Your task to perform on an android device: Open Chrome and go to settings Image 0: 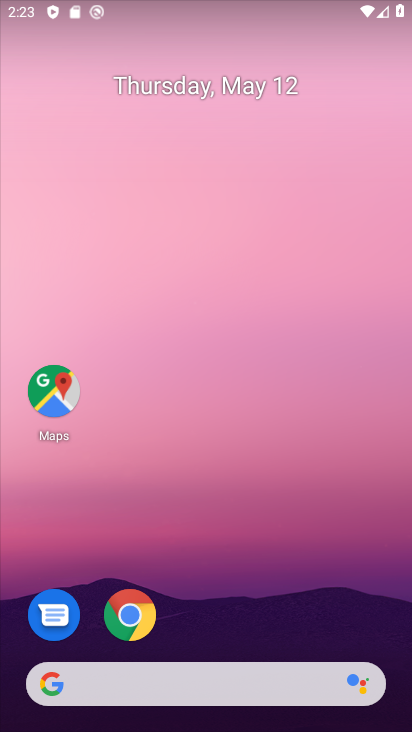
Step 0: click (126, 610)
Your task to perform on an android device: Open Chrome and go to settings Image 1: 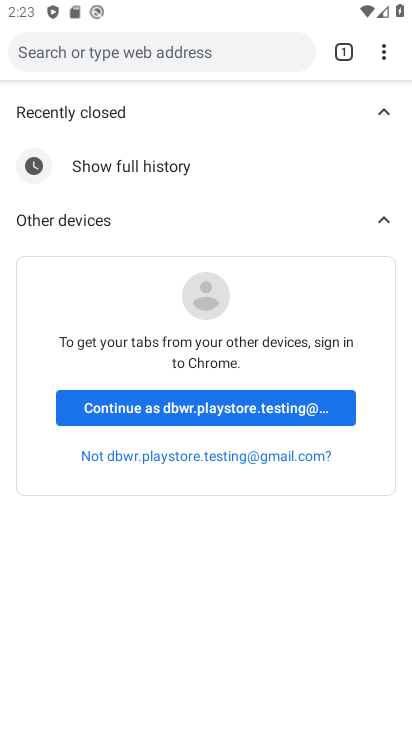
Step 1: click (195, 407)
Your task to perform on an android device: Open Chrome and go to settings Image 2: 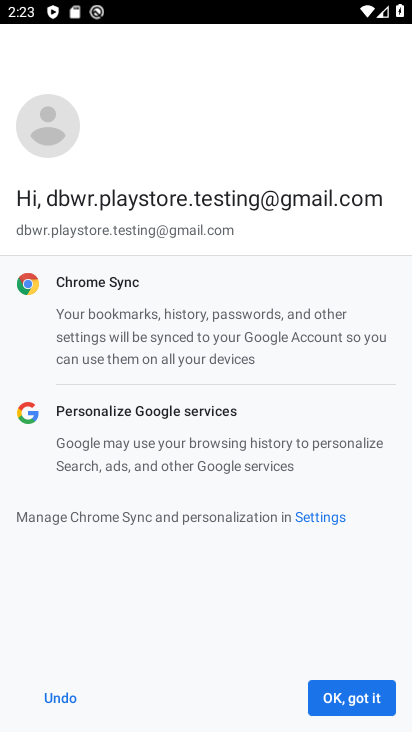
Step 2: click (352, 696)
Your task to perform on an android device: Open Chrome and go to settings Image 3: 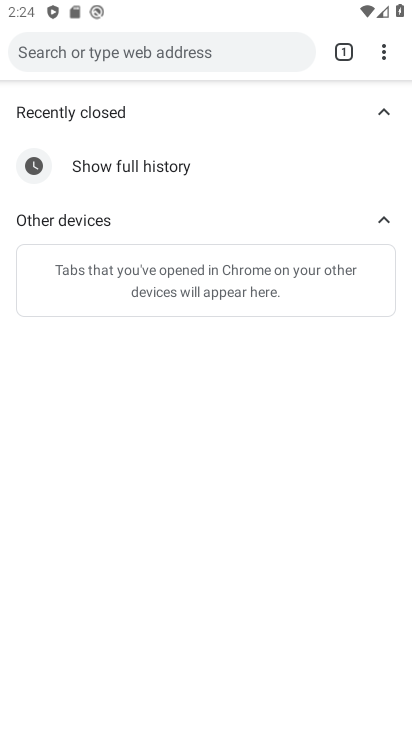
Step 3: press back button
Your task to perform on an android device: Open Chrome and go to settings Image 4: 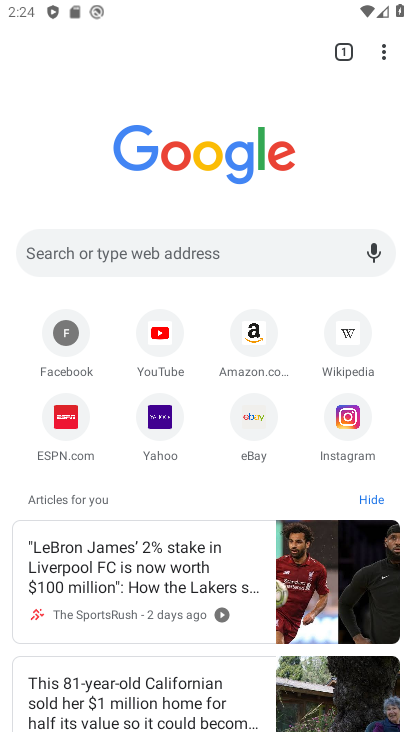
Step 4: click (379, 49)
Your task to perform on an android device: Open Chrome and go to settings Image 5: 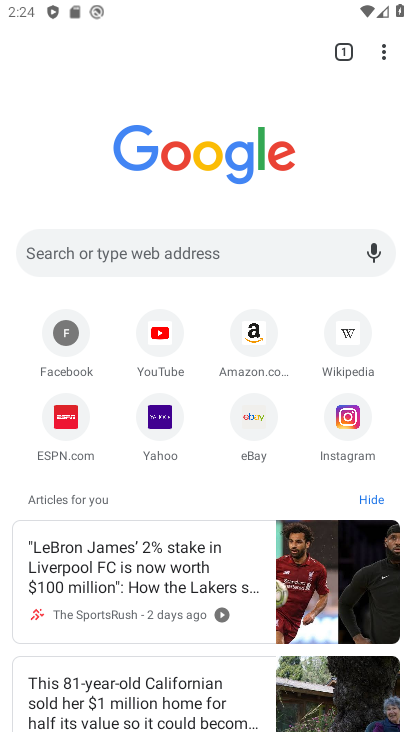
Step 5: click (387, 48)
Your task to perform on an android device: Open Chrome and go to settings Image 6: 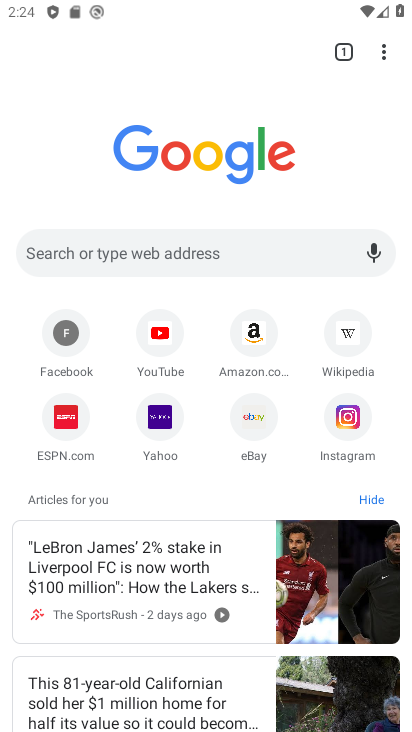
Step 6: click (381, 50)
Your task to perform on an android device: Open Chrome and go to settings Image 7: 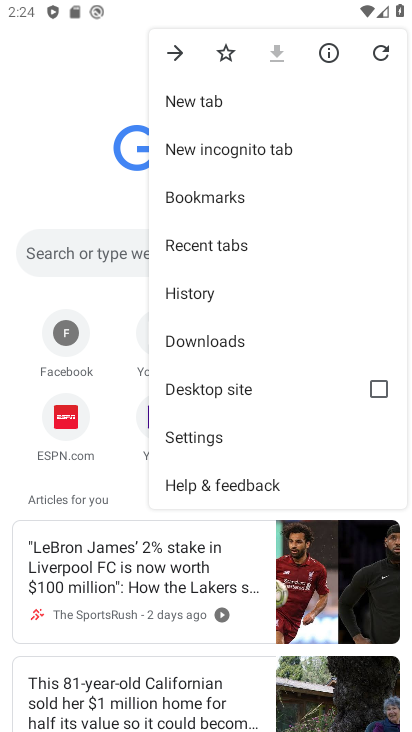
Step 7: click (209, 431)
Your task to perform on an android device: Open Chrome and go to settings Image 8: 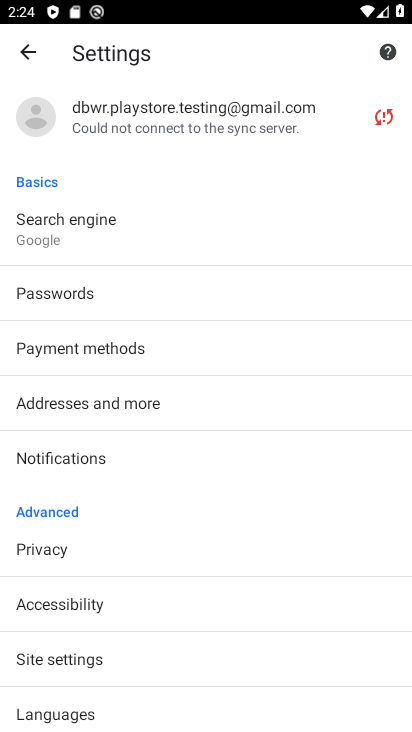
Step 8: task complete